Your task to perform on an android device: What's the weather? Image 0: 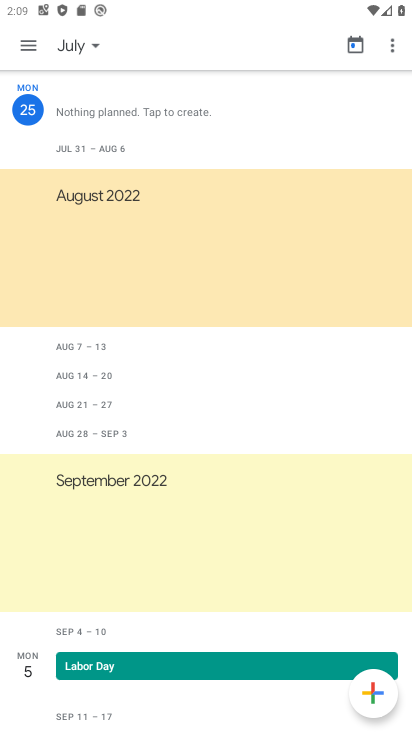
Step 0: press home button
Your task to perform on an android device: What's the weather? Image 1: 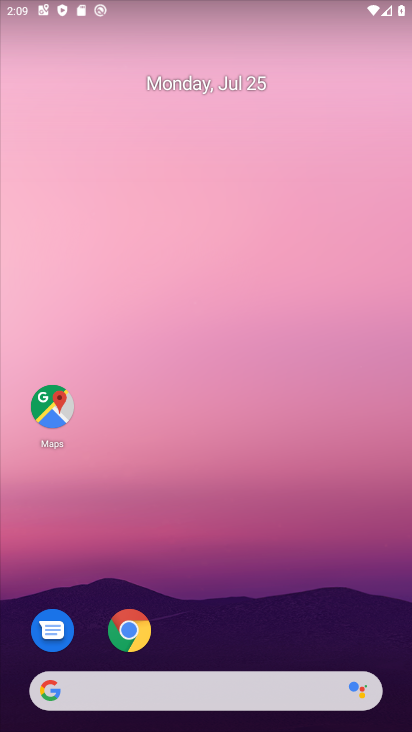
Step 1: click (259, 680)
Your task to perform on an android device: What's the weather? Image 2: 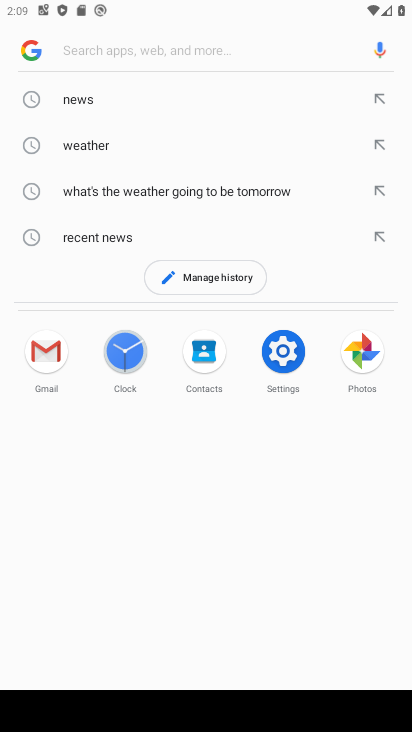
Step 2: type "weather"
Your task to perform on an android device: What's the weather? Image 3: 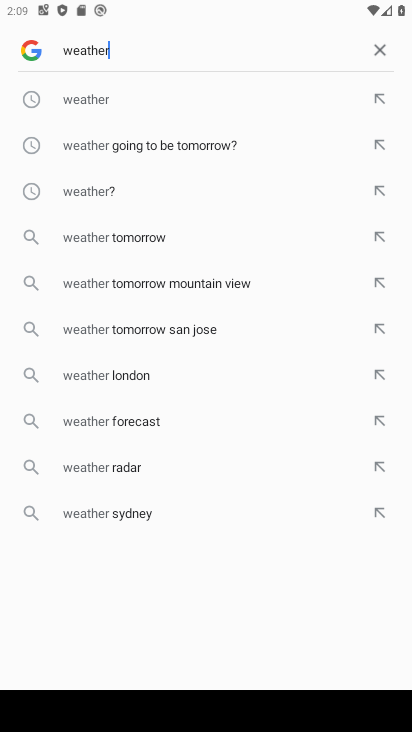
Step 3: click (159, 100)
Your task to perform on an android device: What's the weather? Image 4: 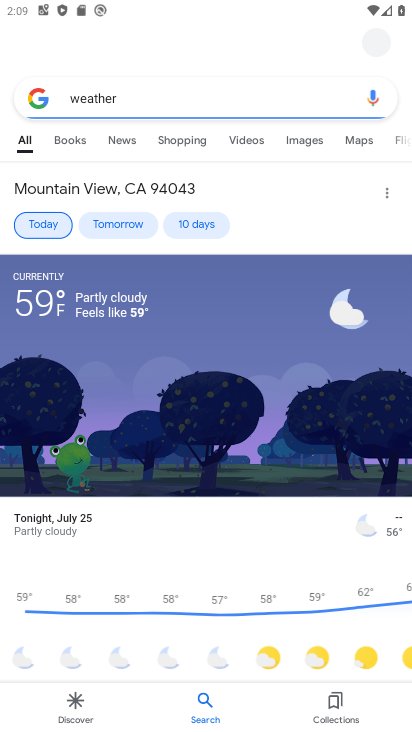
Step 4: task complete